Your task to perform on an android device: Turn on the flashlight Image 0: 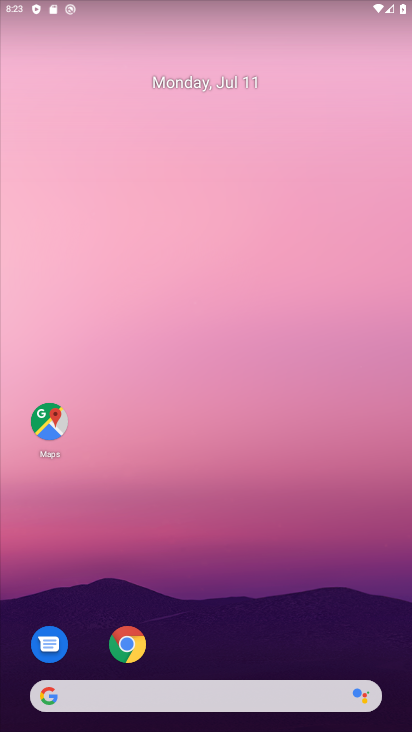
Step 0: drag from (296, 15) to (262, 609)
Your task to perform on an android device: Turn on the flashlight Image 1: 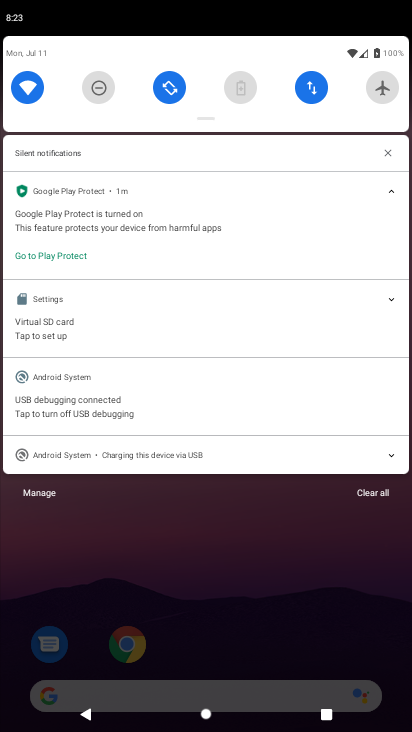
Step 1: task complete